Your task to perform on an android device: Open network settings Image 0: 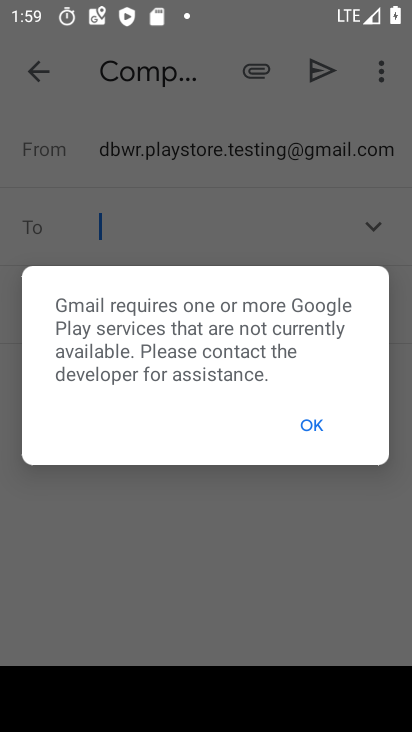
Step 0: press home button
Your task to perform on an android device: Open network settings Image 1: 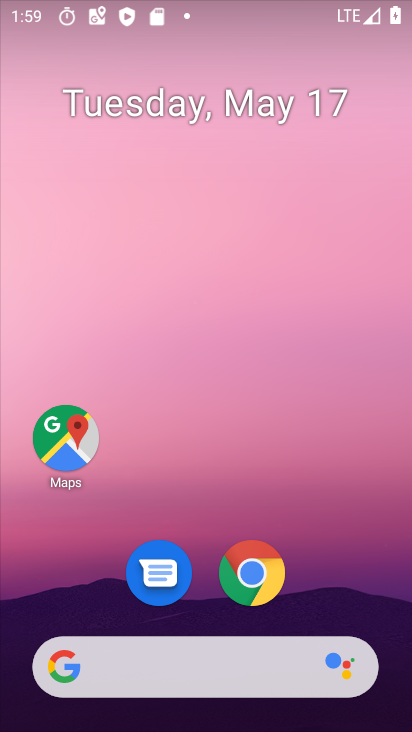
Step 1: drag from (265, 715) to (280, 146)
Your task to perform on an android device: Open network settings Image 2: 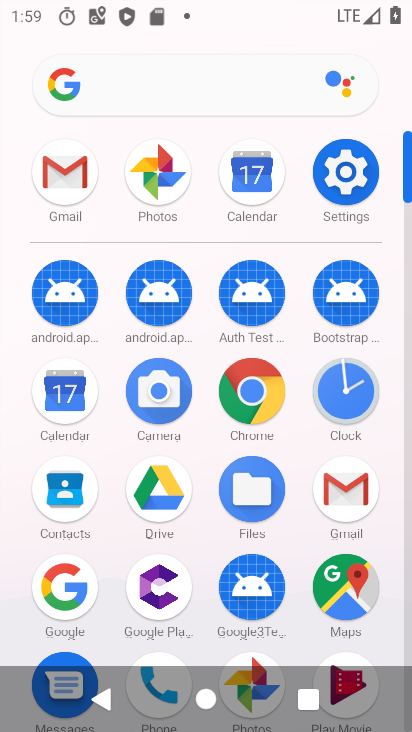
Step 2: click (349, 186)
Your task to perform on an android device: Open network settings Image 3: 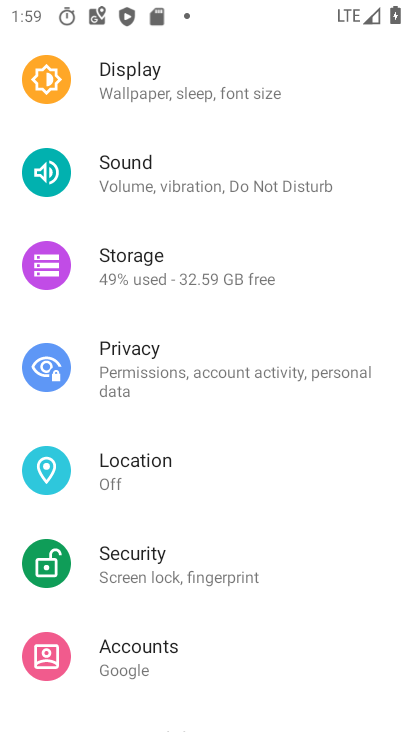
Step 3: drag from (189, 194) to (205, 575)
Your task to perform on an android device: Open network settings Image 4: 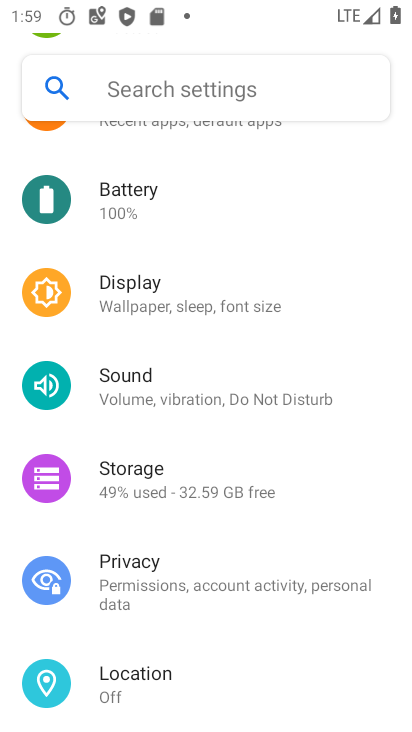
Step 4: drag from (286, 199) to (304, 592)
Your task to perform on an android device: Open network settings Image 5: 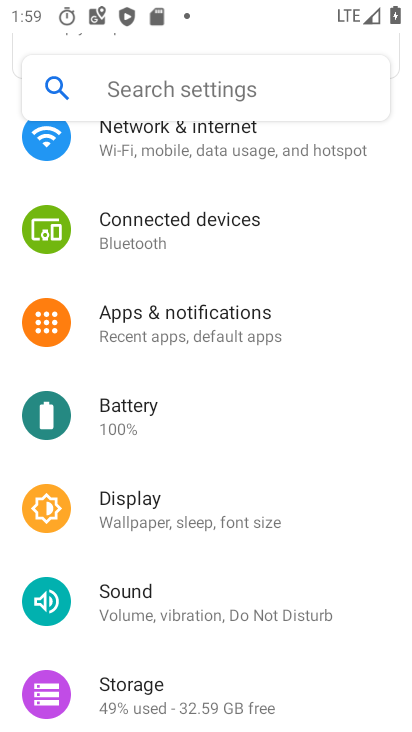
Step 5: click (278, 146)
Your task to perform on an android device: Open network settings Image 6: 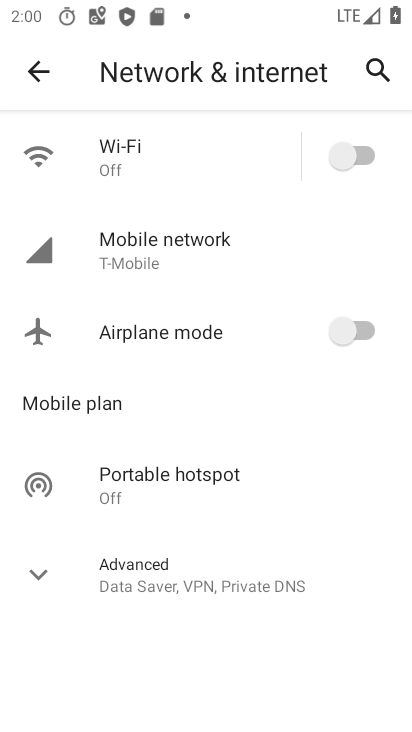
Step 6: task complete